Your task to perform on an android device: Go to display settings Image 0: 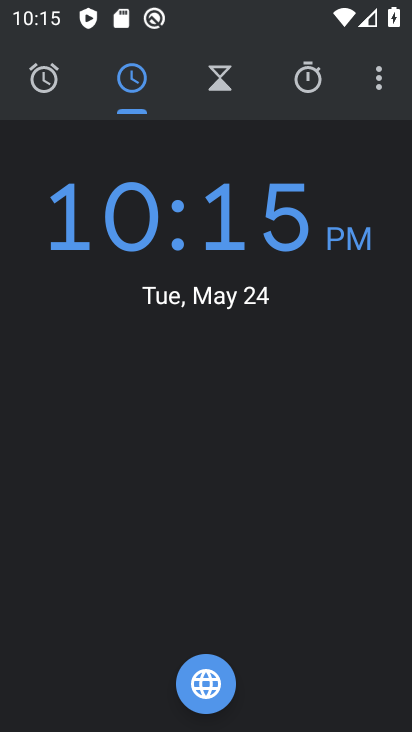
Step 0: press back button
Your task to perform on an android device: Go to display settings Image 1: 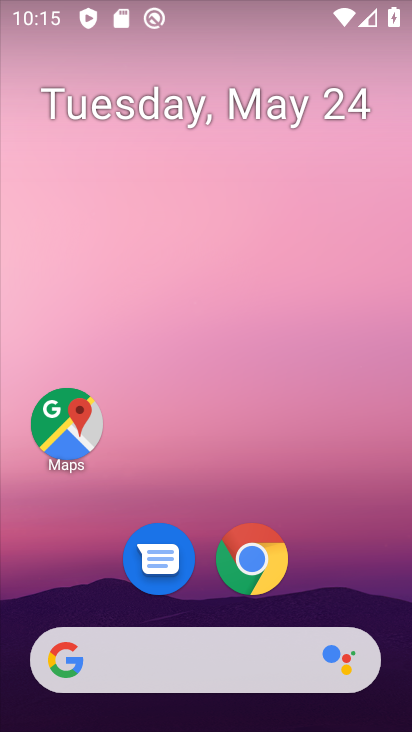
Step 1: drag from (198, 366) to (256, 3)
Your task to perform on an android device: Go to display settings Image 2: 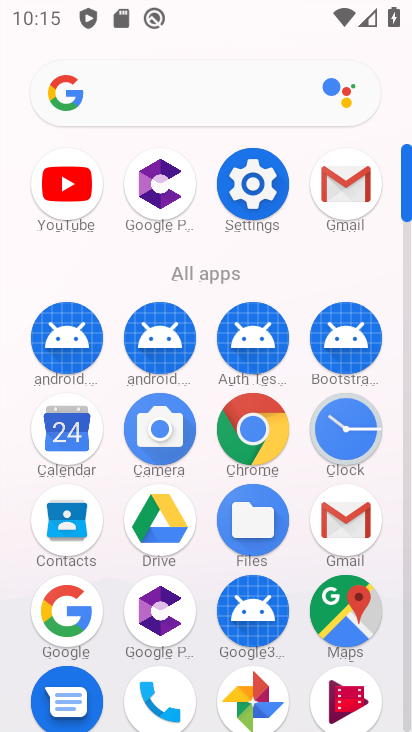
Step 2: click (259, 175)
Your task to perform on an android device: Go to display settings Image 3: 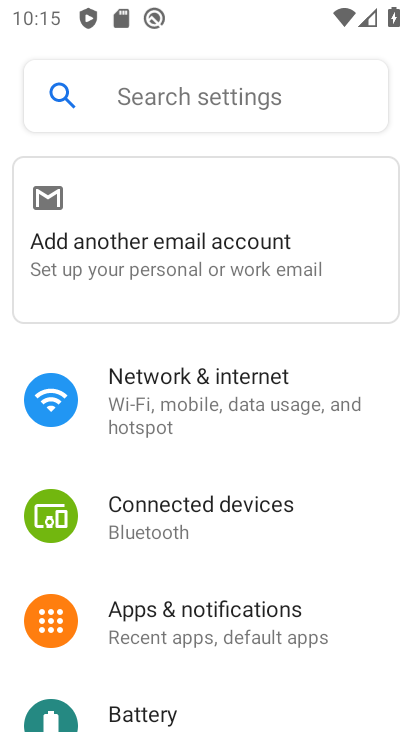
Step 3: drag from (203, 654) to (281, 160)
Your task to perform on an android device: Go to display settings Image 4: 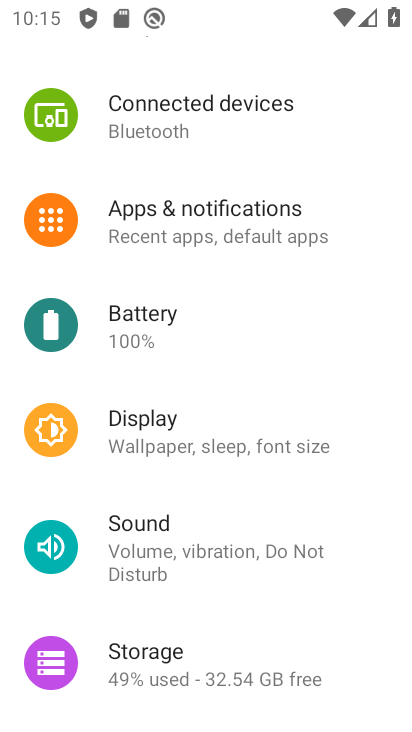
Step 4: click (172, 422)
Your task to perform on an android device: Go to display settings Image 5: 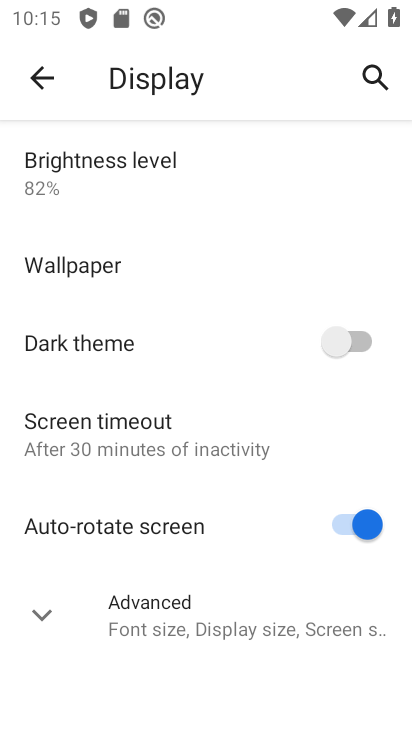
Step 5: task complete